Your task to perform on an android device: turn off improve location accuracy Image 0: 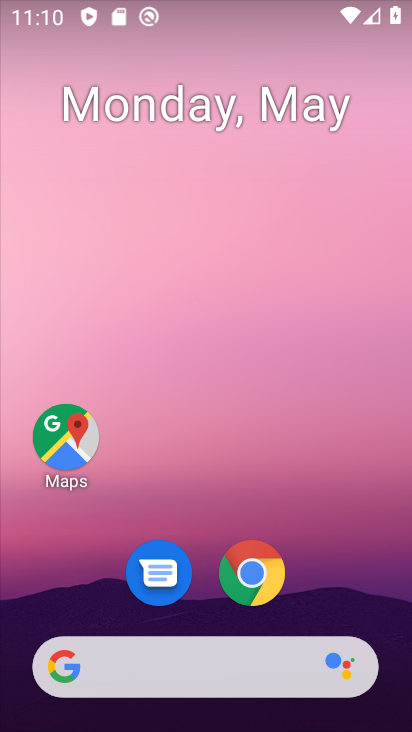
Step 0: drag from (265, 723) to (384, 2)
Your task to perform on an android device: turn off improve location accuracy Image 1: 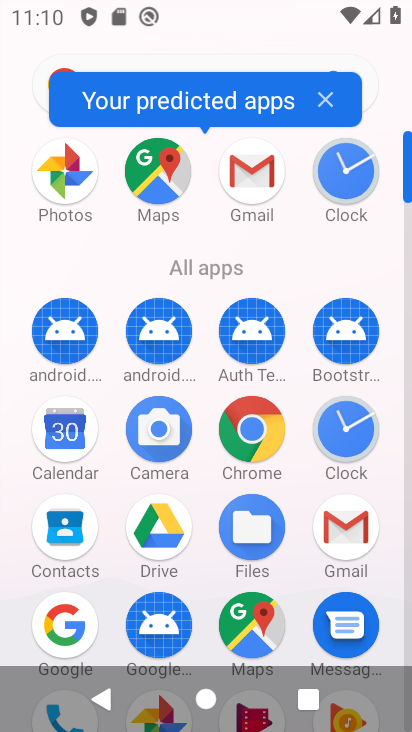
Step 1: click (156, 182)
Your task to perform on an android device: turn off improve location accuracy Image 2: 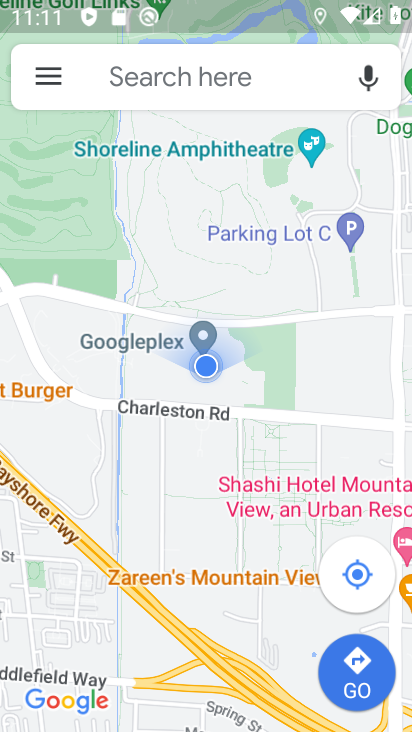
Step 2: click (33, 81)
Your task to perform on an android device: turn off improve location accuracy Image 3: 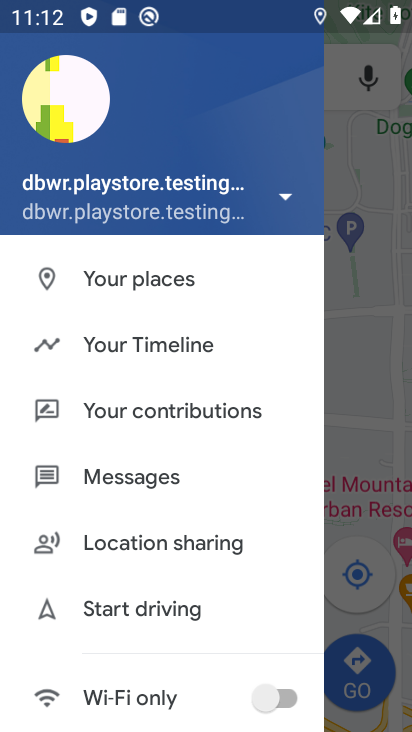
Step 3: drag from (105, 613) to (115, 12)
Your task to perform on an android device: turn off improve location accuracy Image 4: 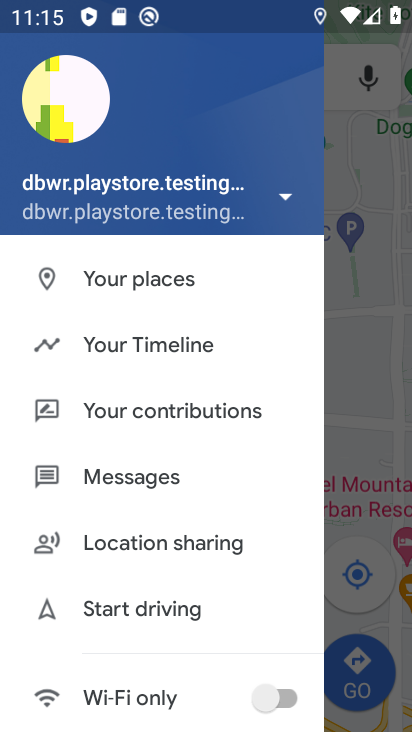
Step 4: drag from (154, 708) to (220, 34)
Your task to perform on an android device: turn off improve location accuracy Image 5: 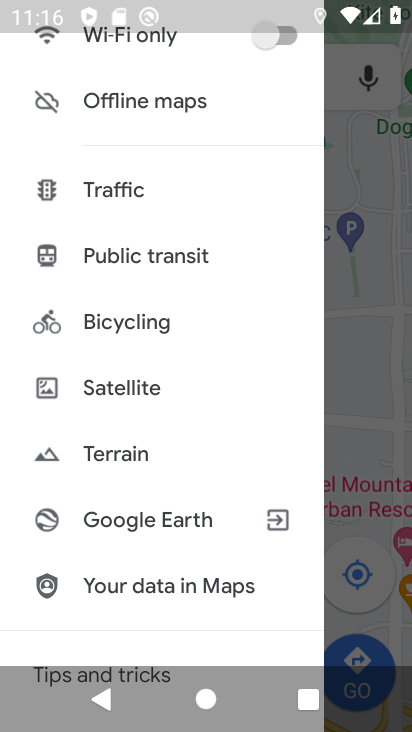
Step 5: drag from (150, 494) to (155, 166)
Your task to perform on an android device: turn off improve location accuracy Image 6: 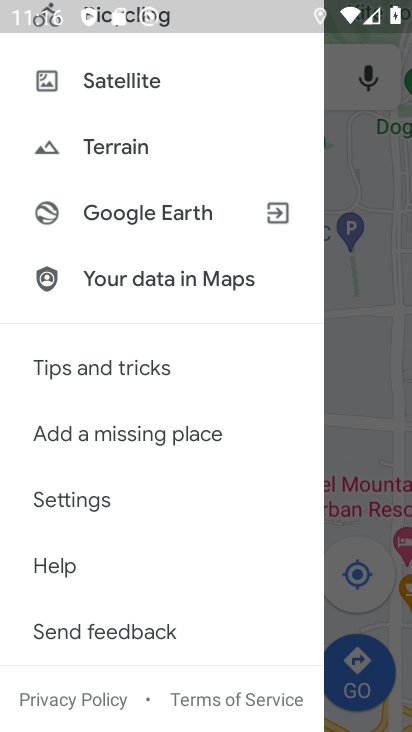
Step 6: click (81, 495)
Your task to perform on an android device: turn off improve location accuracy Image 7: 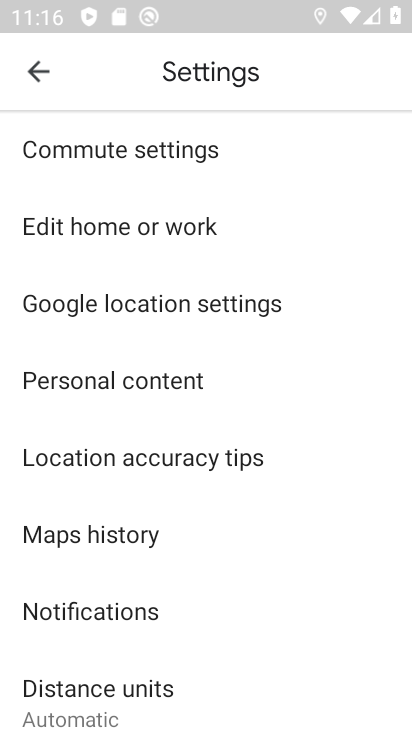
Step 7: click (231, 311)
Your task to perform on an android device: turn off improve location accuracy Image 8: 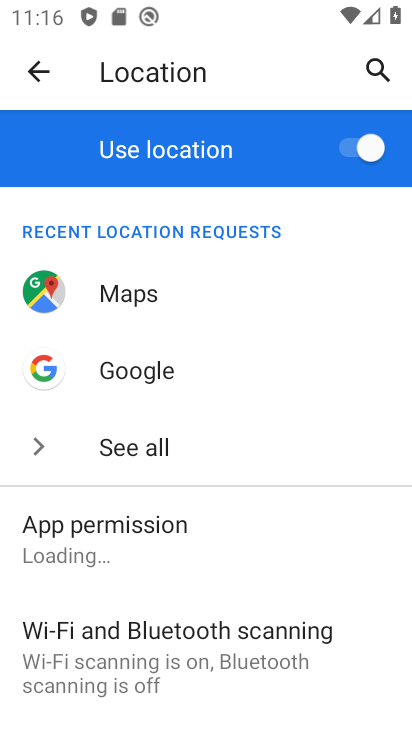
Step 8: drag from (295, 544) to (335, 30)
Your task to perform on an android device: turn off improve location accuracy Image 9: 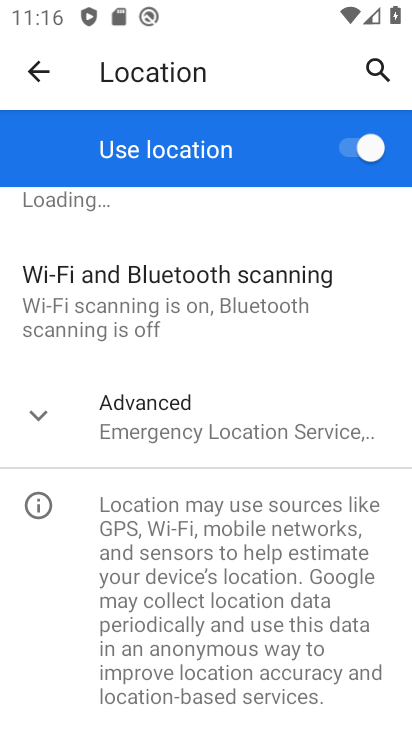
Step 9: click (306, 408)
Your task to perform on an android device: turn off improve location accuracy Image 10: 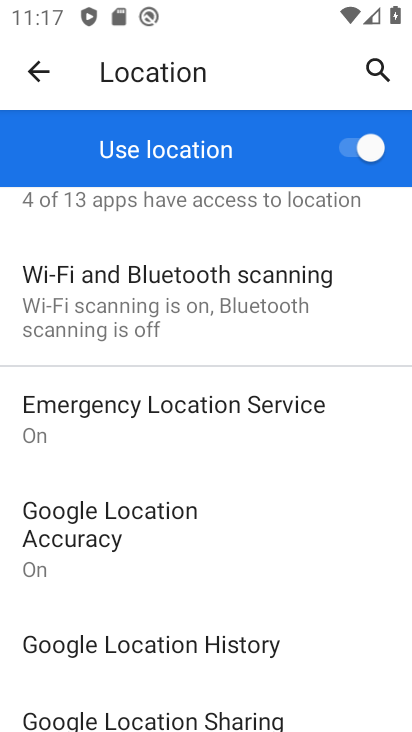
Step 10: click (140, 546)
Your task to perform on an android device: turn off improve location accuracy Image 11: 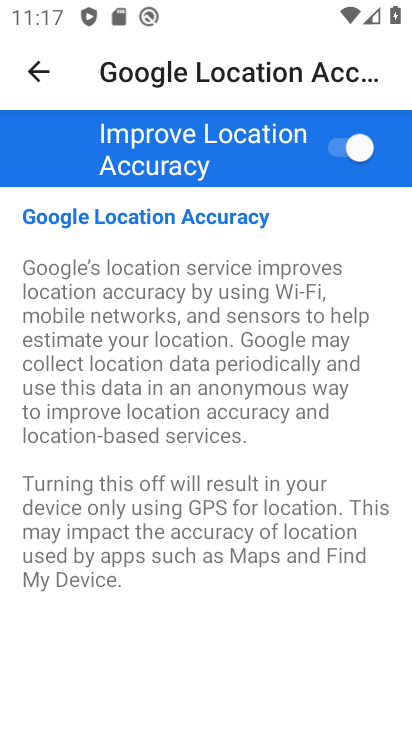
Step 11: click (355, 151)
Your task to perform on an android device: turn off improve location accuracy Image 12: 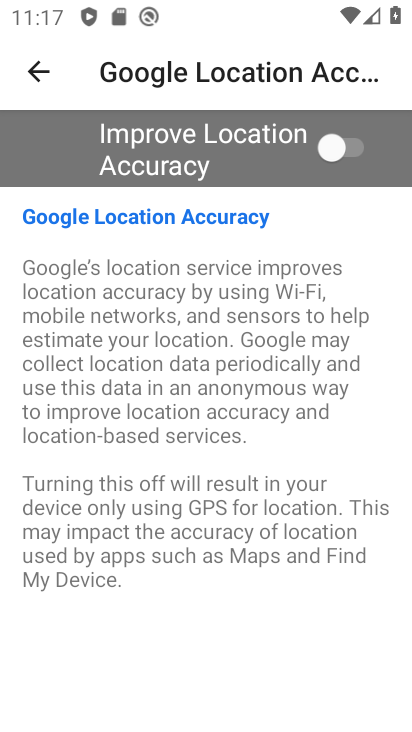
Step 12: task complete